Your task to perform on an android device: change notifications settings Image 0: 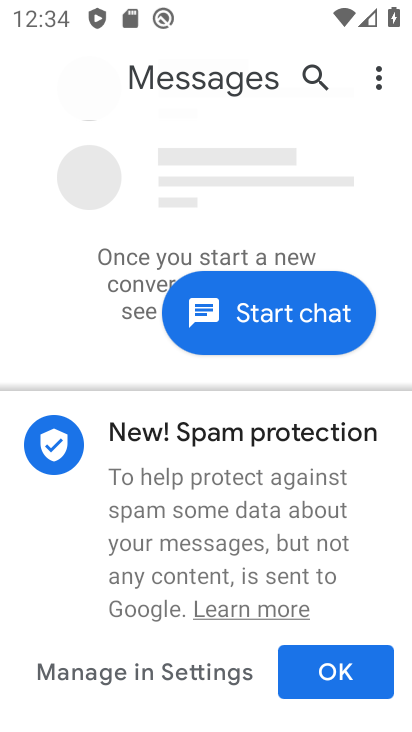
Step 0: press home button
Your task to perform on an android device: change notifications settings Image 1: 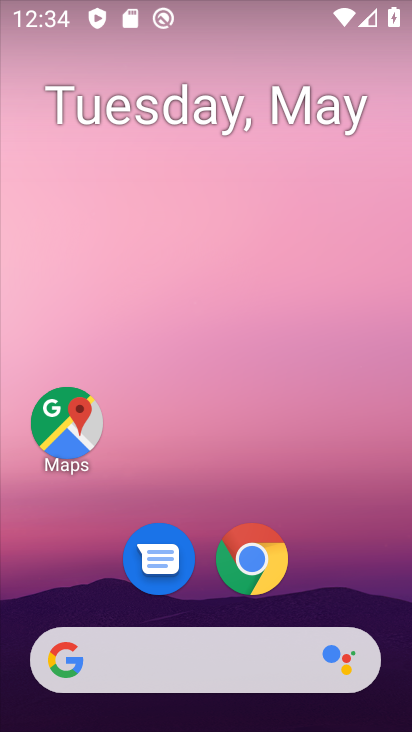
Step 1: drag from (339, 569) to (343, 127)
Your task to perform on an android device: change notifications settings Image 2: 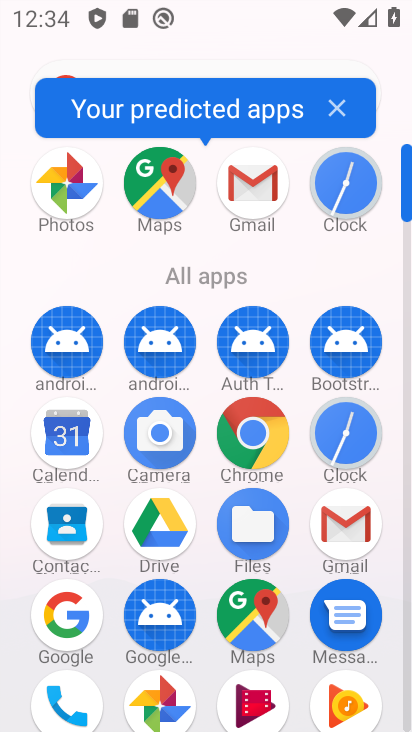
Step 2: drag from (172, 587) to (216, 229)
Your task to perform on an android device: change notifications settings Image 3: 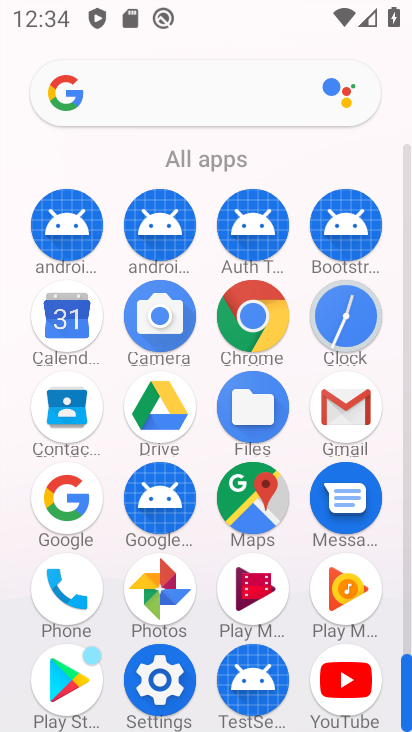
Step 3: click (148, 678)
Your task to perform on an android device: change notifications settings Image 4: 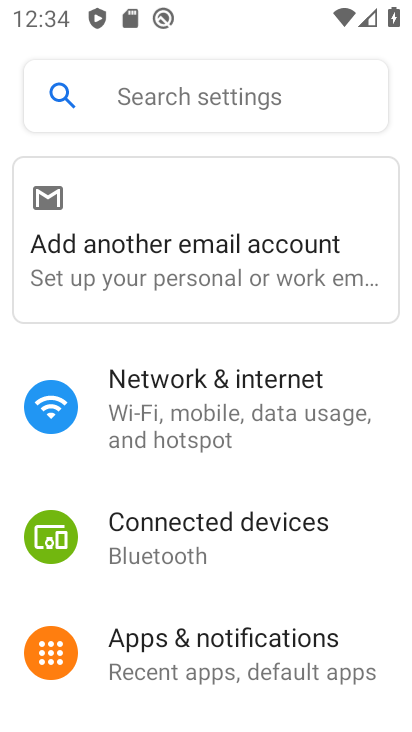
Step 4: click (234, 653)
Your task to perform on an android device: change notifications settings Image 5: 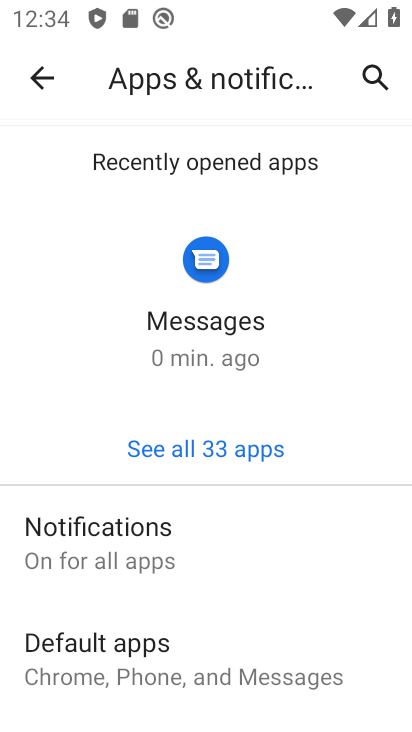
Step 5: task complete